Your task to perform on an android device: Go to Google maps Image 0: 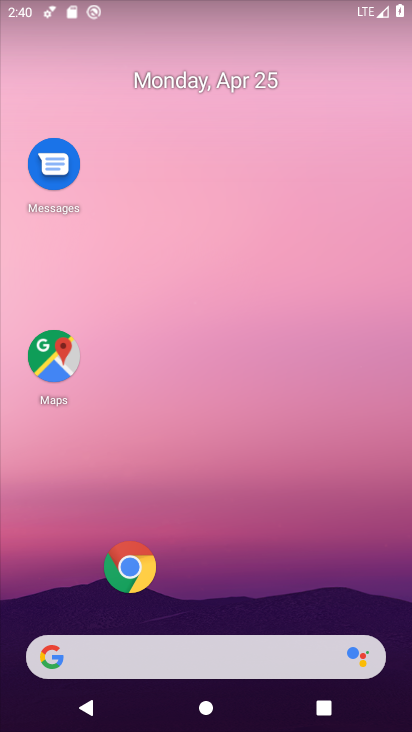
Step 0: drag from (271, 564) to (307, 162)
Your task to perform on an android device: Go to Google maps Image 1: 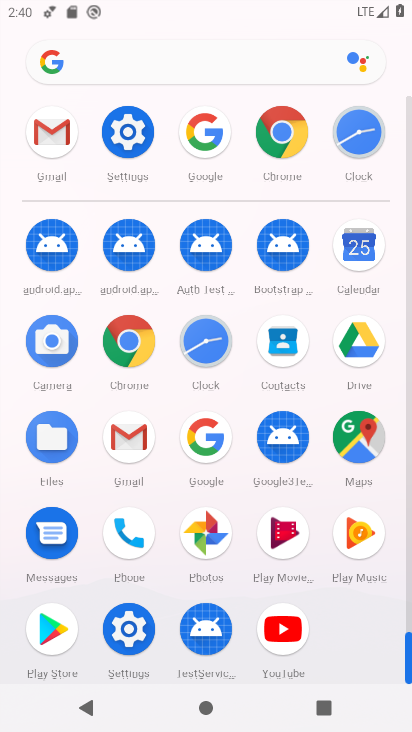
Step 1: click (370, 435)
Your task to perform on an android device: Go to Google maps Image 2: 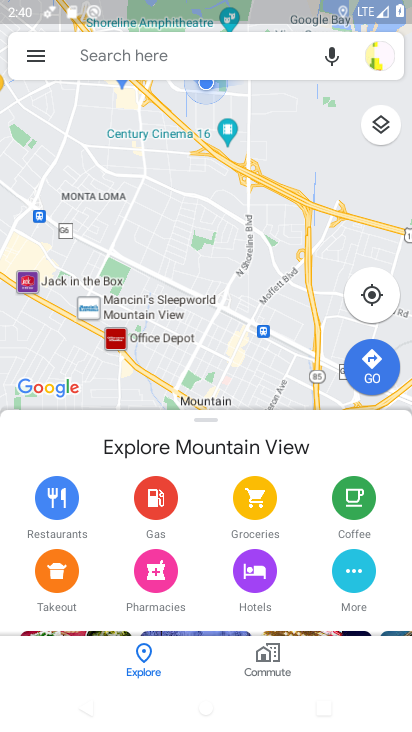
Step 2: task complete